Your task to perform on an android device: Go to eBay Image 0: 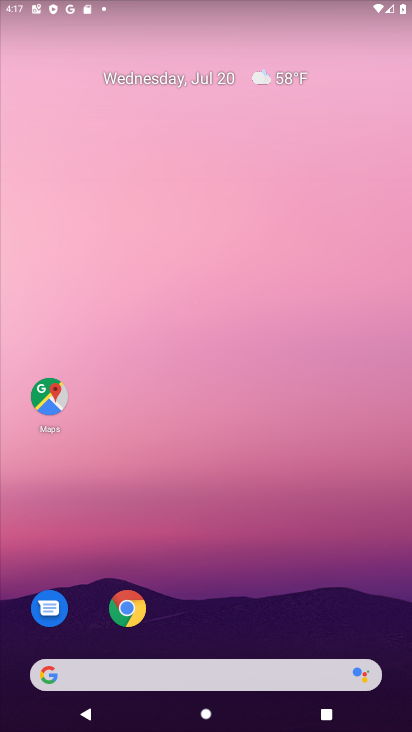
Step 0: click (135, 622)
Your task to perform on an android device: Go to eBay Image 1: 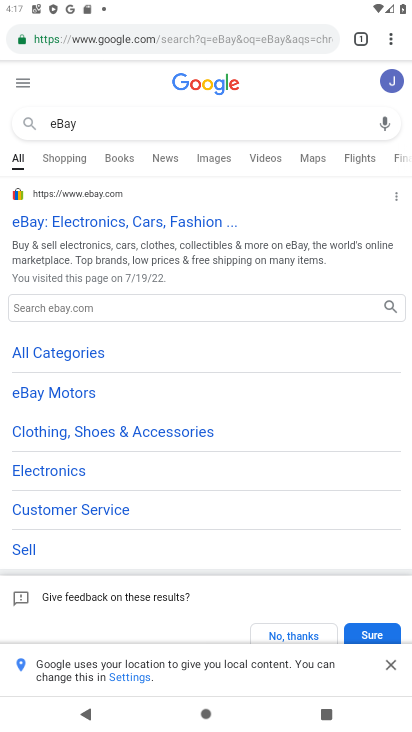
Step 1: click (99, 223)
Your task to perform on an android device: Go to eBay Image 2: 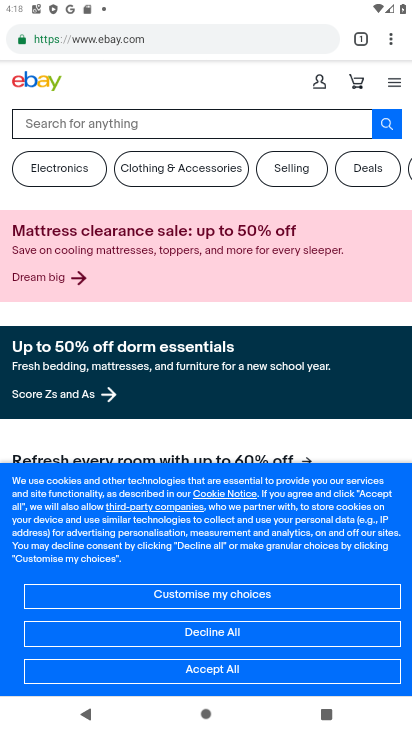
Step 2: task complete